Your task to perform on an android device: check out phone information Image 0: 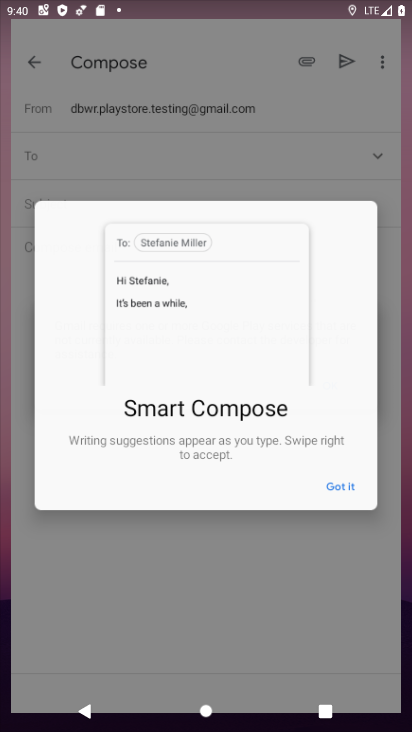
Step 0: drag from (243, 528) to (159, 5)
Your task to perform on an android device: check out phone information Image 1: 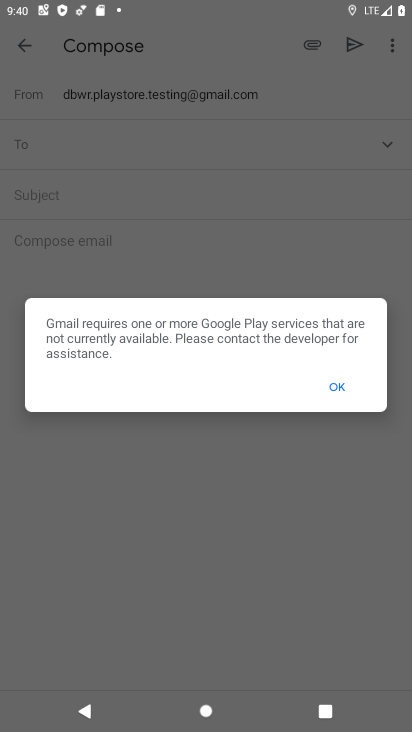
Step 1: press back button
Your task to perform on an android device: check out phone information Image 2: 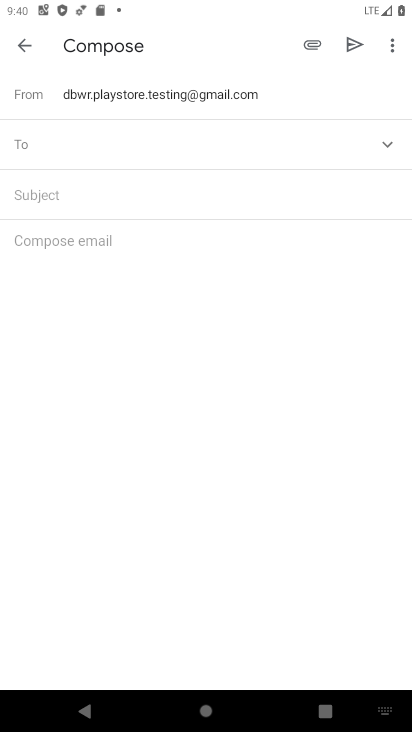
Step 2: press home button
Your task to perform on an android device: check out phone information Image 3: 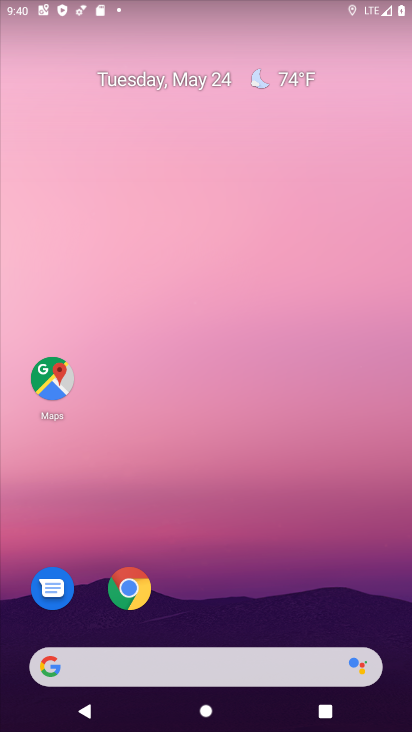
Step 3: drag from (266, 549) to (203, 1)
Your task to perform on an android device: check out phone information Image 4: 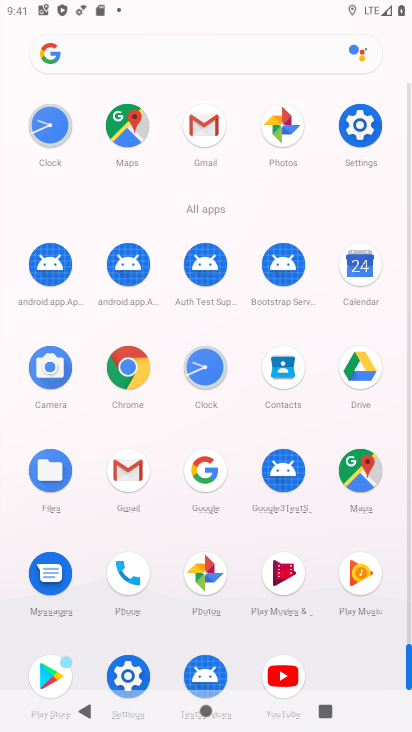
Step 4: click (355, 124)
Your task to perform on an android device: check out phone information Image 5: 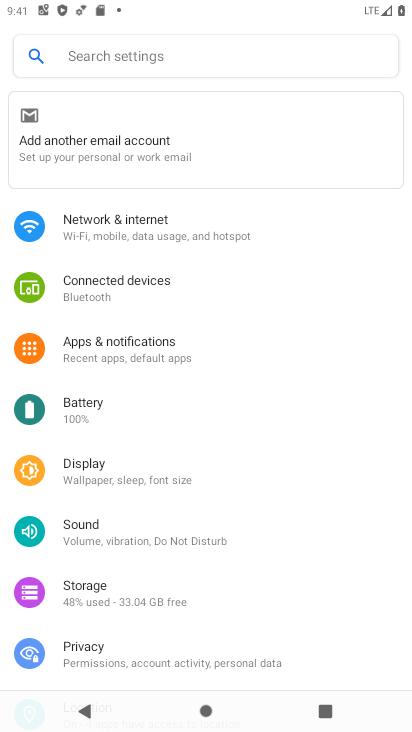
Step 5: drag from (253, 560) to (246, 99)
Your task to perform on an android device: check out phone information Image 6: 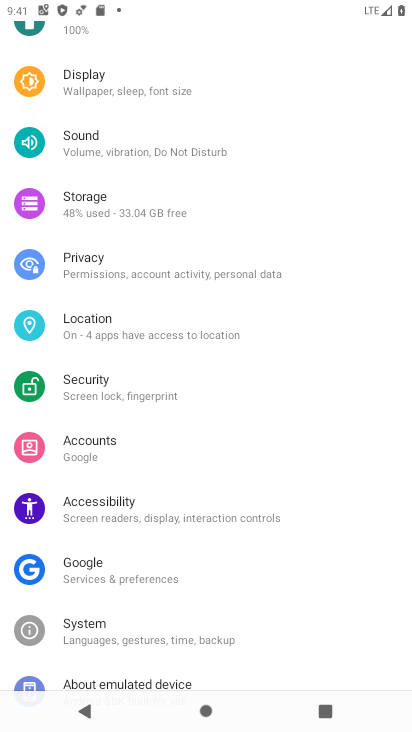
Step 6: drag from (213, 575) to (213, 126)
Your task to perform on an android device: check out phone information Image 7: 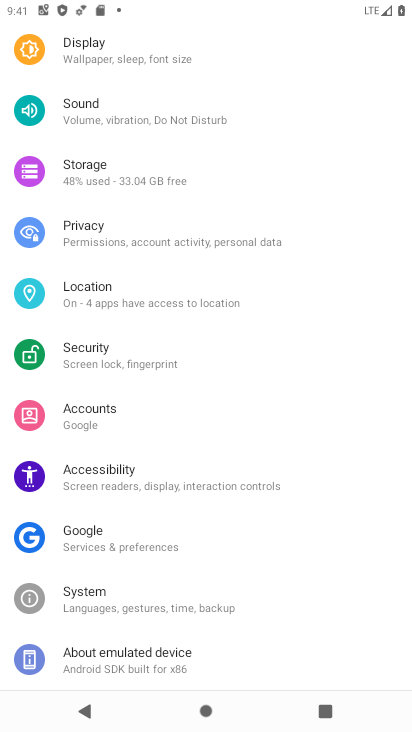
Step 7: click (126, 668)
Your task to perform on an android device: check out phone information Image 8: 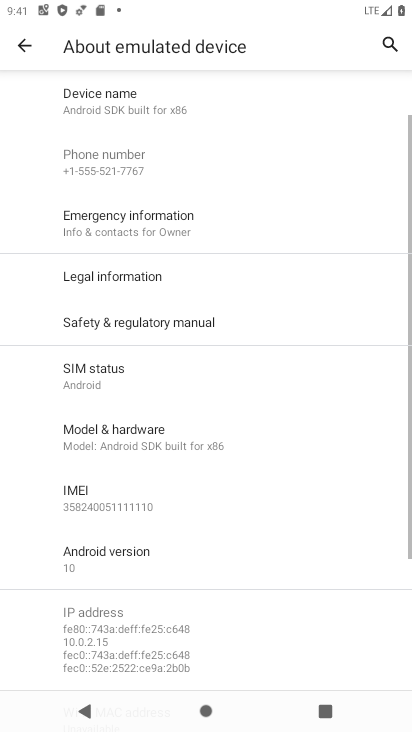
Step 8: task complete